Your task to perform on an android device: Go to Maps Image 0: 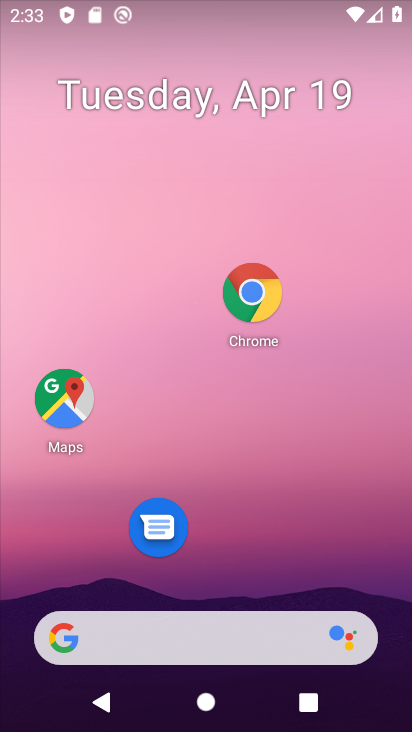
Step 0: click (56, 401)
Your task to perform on an android device: Go to Maps Image 1: 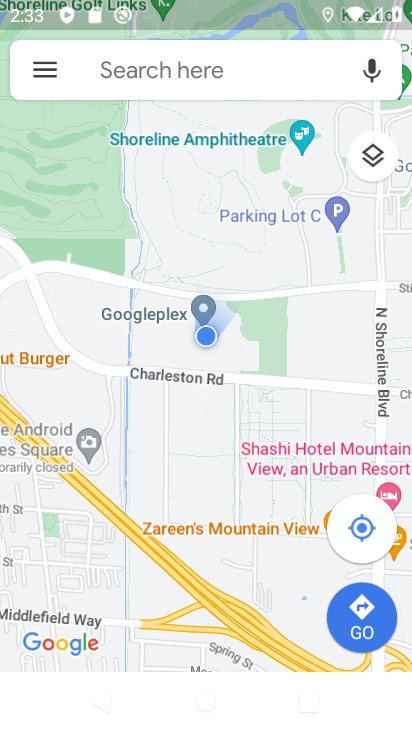
Step 1: task complete